Your task to perform on an android device: Search for vegetarian restaurants on Maps Image 0: 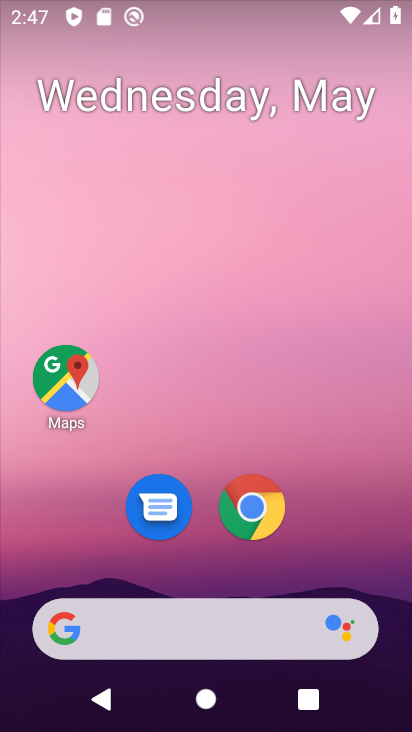
Step 0: click (63, 375)
Your task to perform on an android device: Search for vegetarian restaurants on Maps Image 1: 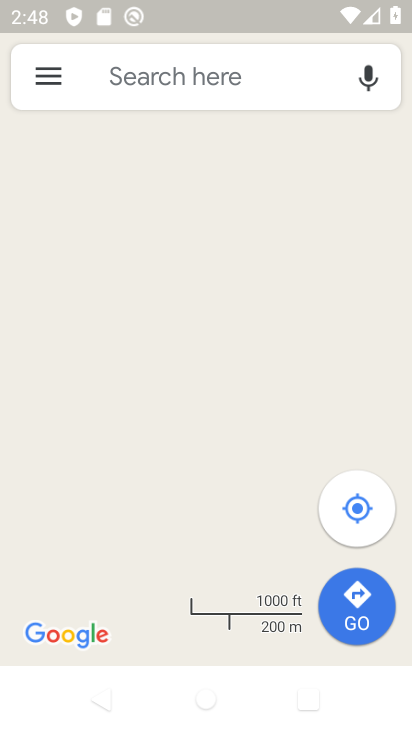
Step 1: click (150, 82)
Your task to perform on an android device: Search for vegetarian restaurants on Maps Image 2: 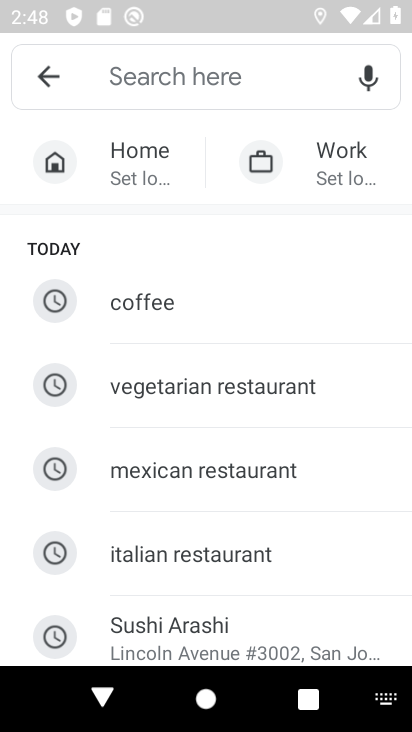
Step 2: type "vegetarian rest"
Your task to perform on an android device: Search for vegetarian restaurants on Maps Image 3: 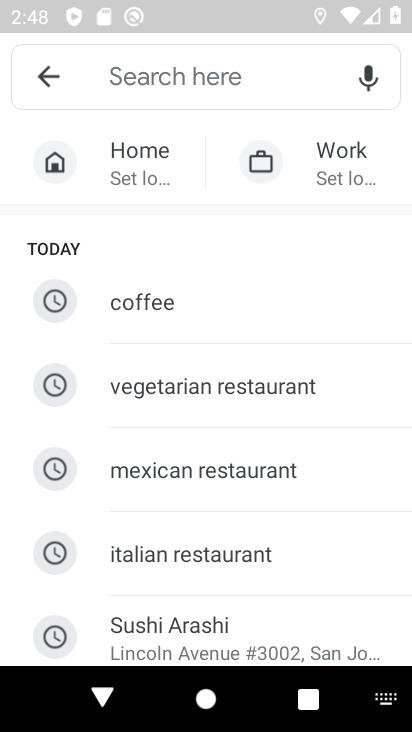
Step 3: click (235, 383)
Your task to perform on an android device: Search for vegetarian restaurants on Maps Image 4: 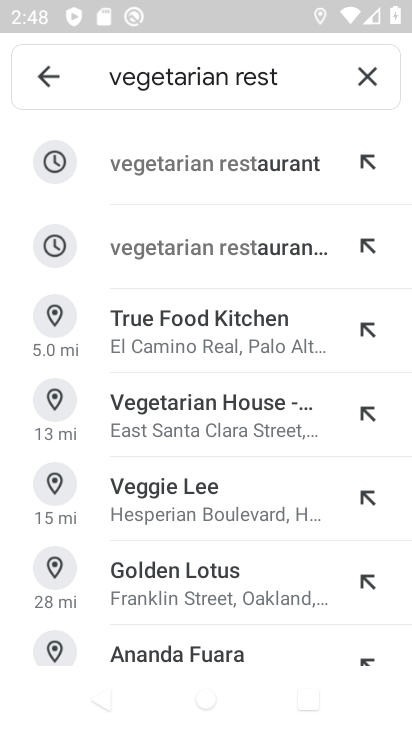
Step 4: click (153, 159)
Your task to perform on an android device: Search for vegetarian restaurants on Maps Image 5: 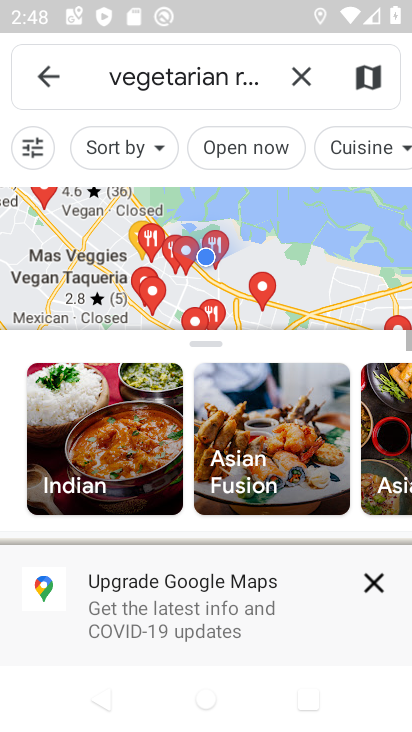
Step 5: task complete